Your task to perform on an android device: Show me popular videos on Youtube Image 0: 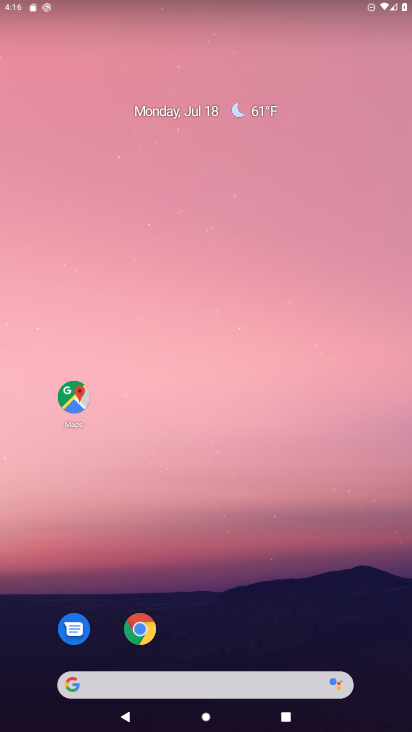
Step 0: drag from (184, 661) to (240, 290)
Your task to perform on an android device: Show me popular videos on Youtube Image 1: 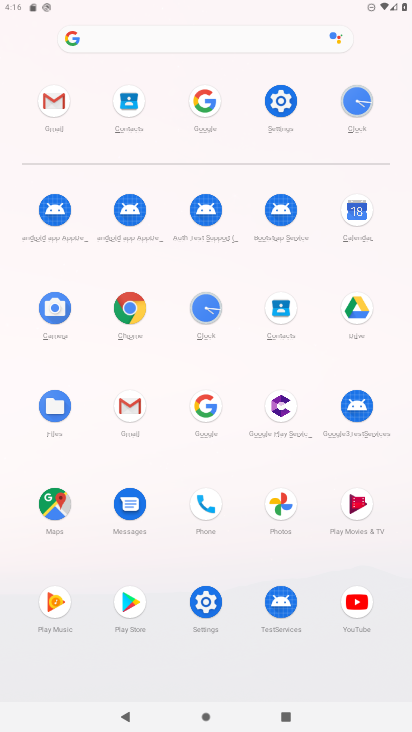
Step 1: click (337, 607)
Your task to perform on an android device: Show me popular videos on Youtube Image 2: 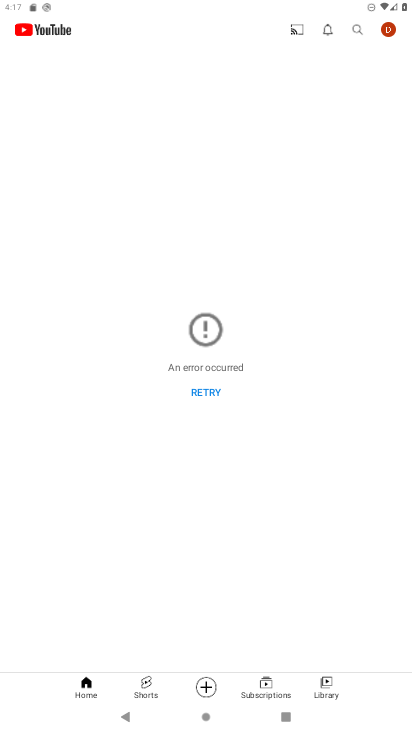
Step 2: click (215, 388)
Your task to perform on an android device: Show me popular videos on Youtube Image 3: 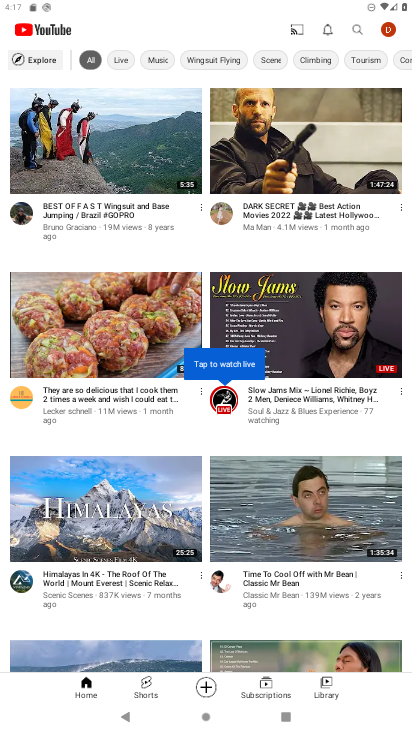
Step 3: task complete